Your task to perform on an android device: Open Amazon Image 0: 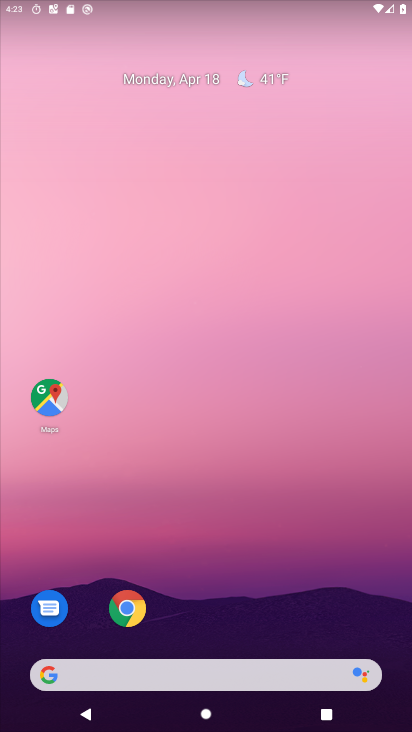
Step 0: click (127, 604)
Your task to perform on an android device: Open Amazon Image 1: 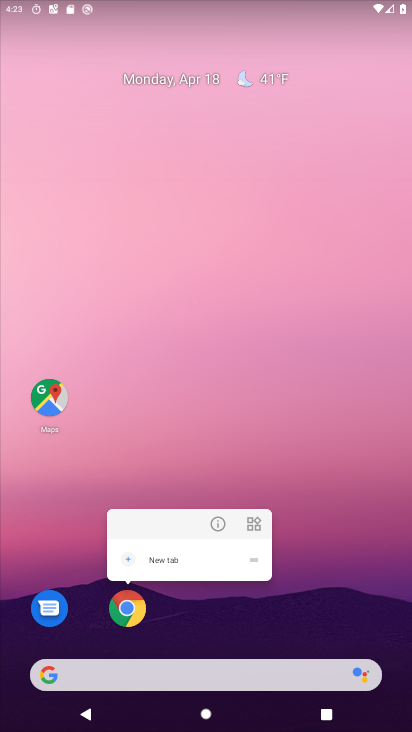
Step 1: click (127, 604)
Your task to perform on an android device: Open Amazon Image 2: 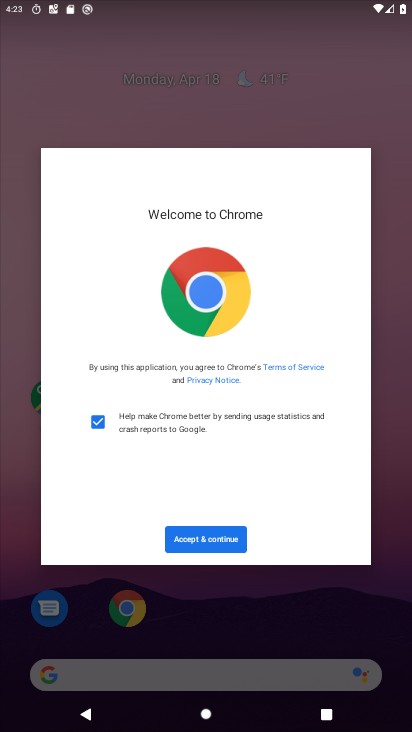
Step 2: click (196, 534)
Your task to perform on an android device: Open Amazon Image 3: 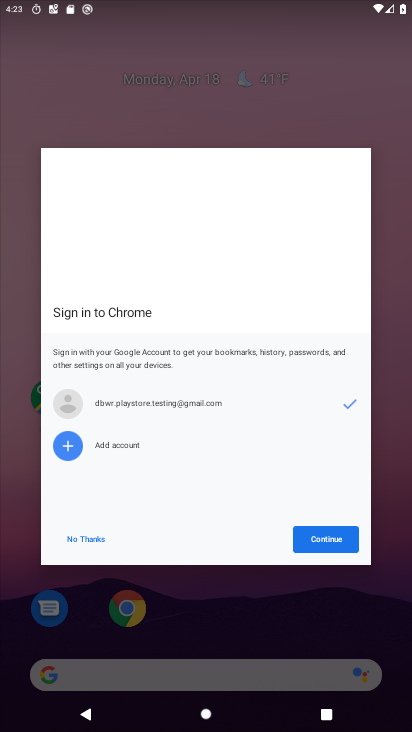
Step 3: click (307, 540)
Your task to perform on an android device: Open Amazon Image 4: 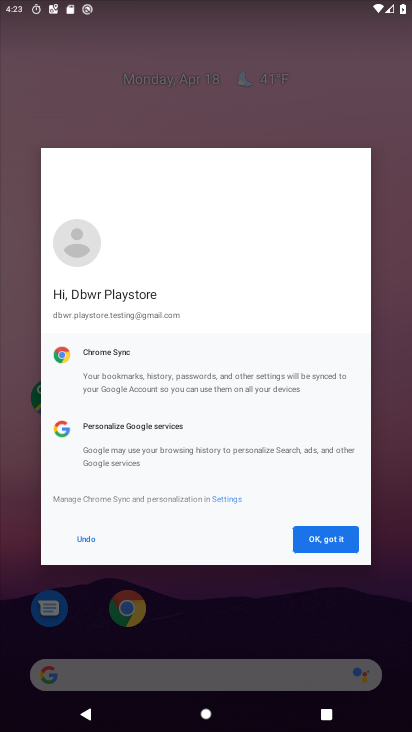
Step 4: click (307, 540)
Your task to perform on an android device: Open Amazon Image 5: 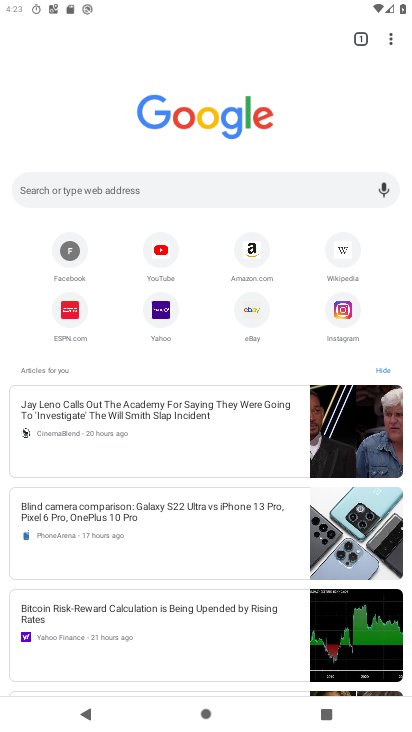
Step 5: click (255, 260)
Your task to perform on an android device: Open Amazon Image 6: 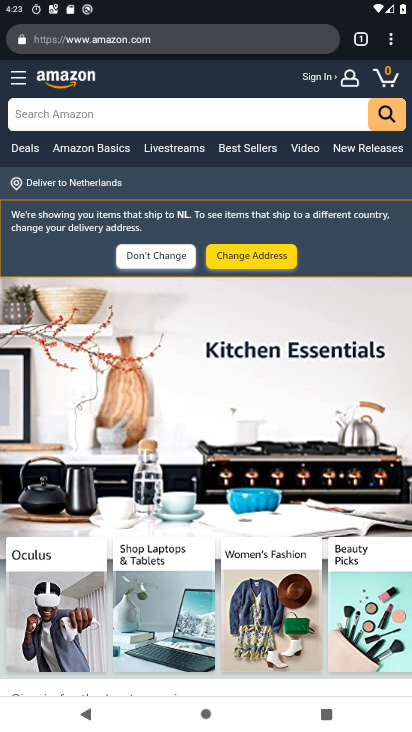
Step 6: task complete